Your task to perform on an android device: Add logitech g903 to the cart on costco Image 0: 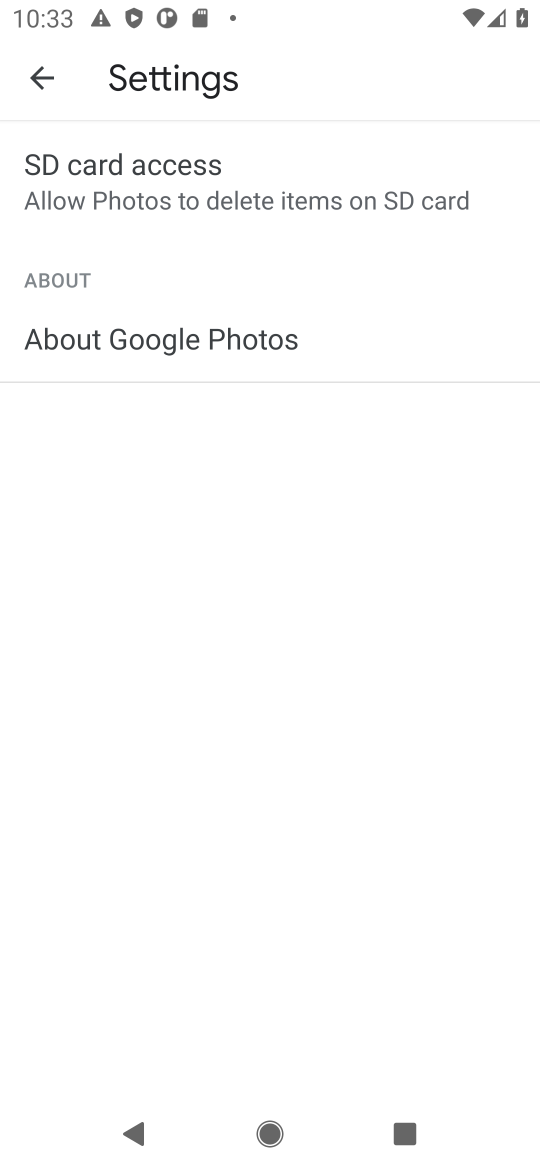
Step 0: press home button
Your task to perform on an android device: Add logitech g903 to the cart on costco Image 1: 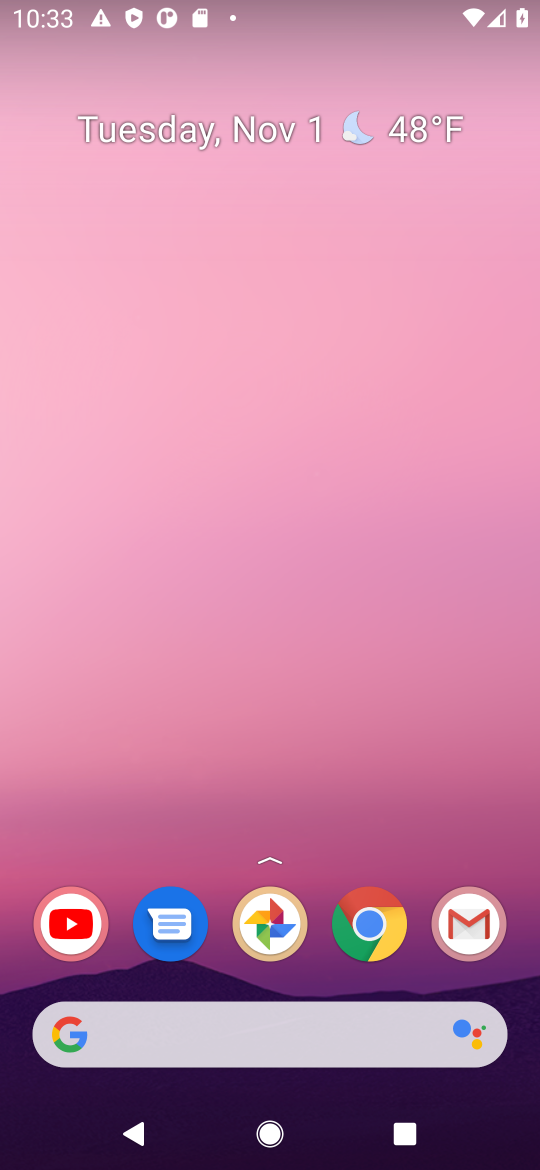
Step 1: click (390, 940)
Your task to perform on an android device: Add logitech g903 to the cart on costco Image 2: 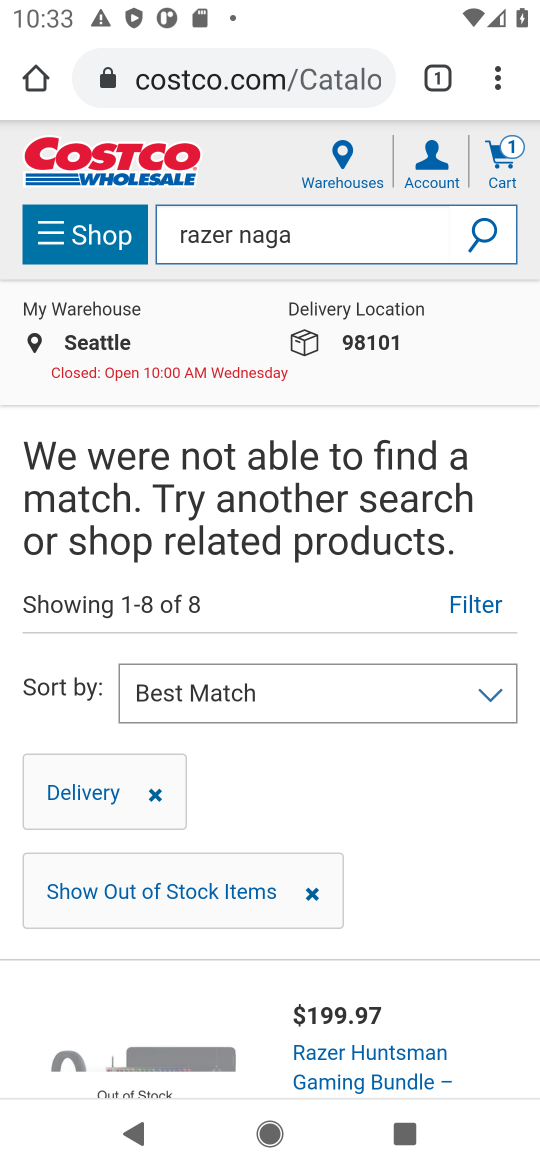
Step 2: click (487, 234)
Your task to perform on an android device: Add logitech g903 to the cart on costco Image 3: 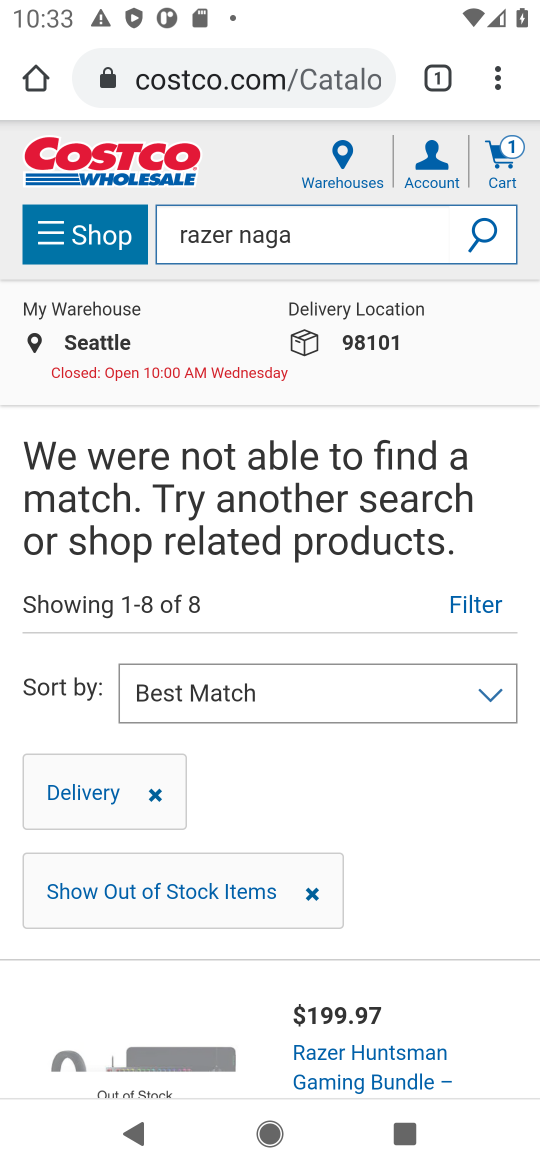
Step 3: click (394, 229)
Your task to perform on an android device: Add logitech g903 to the cart on costco Image 4: 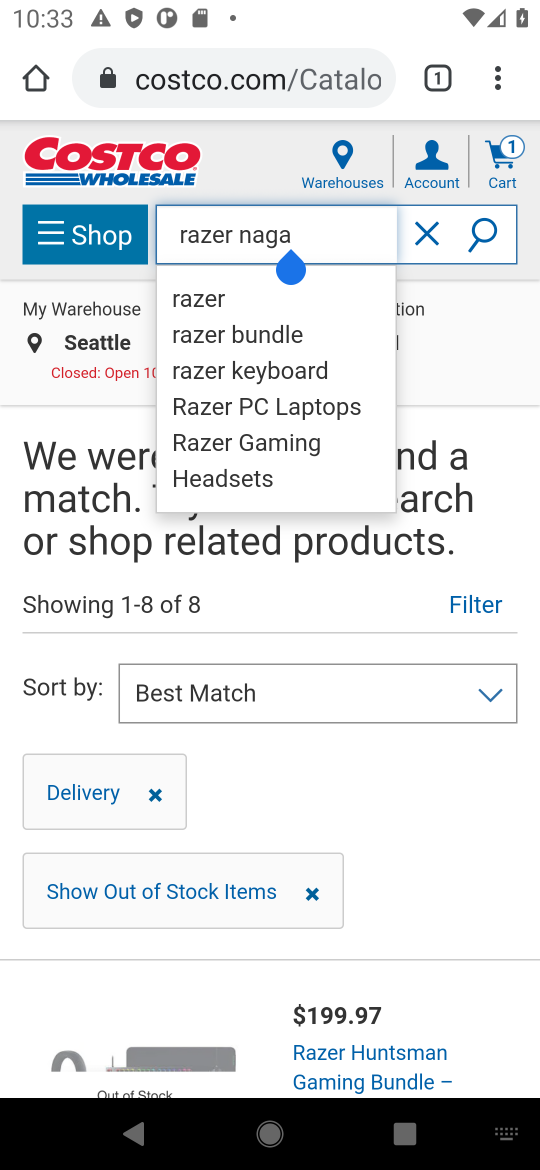
Step 4: click (430, 236)
Your task to perform on an android device: Add logitech g903 to the cart on costco Image 5: 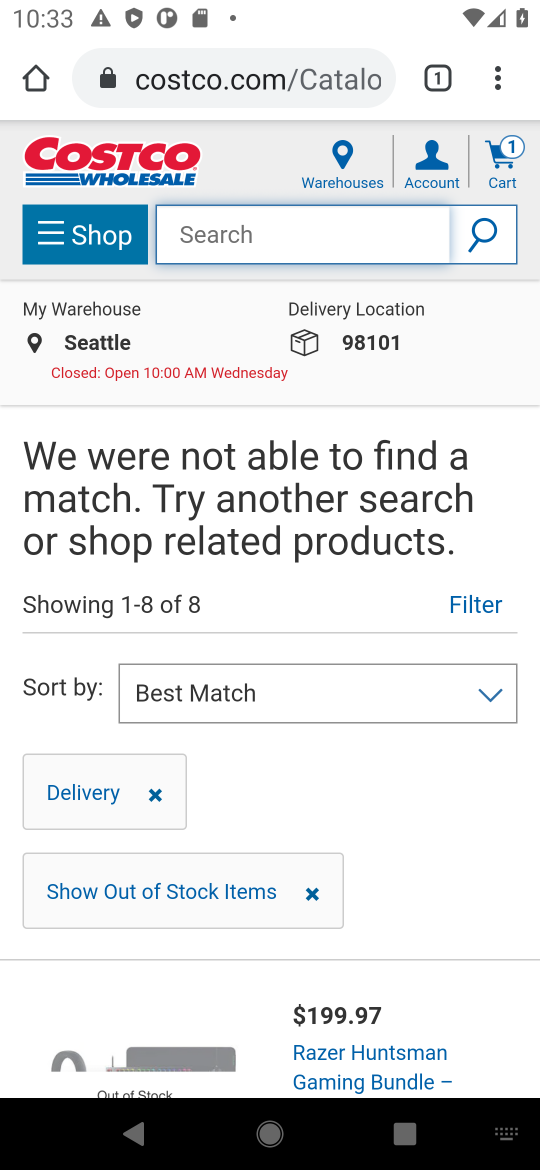
Step 5: type "logitech g903"
Your task to perform on an android device: Add logitech g903 to the cart on costco Image 6: 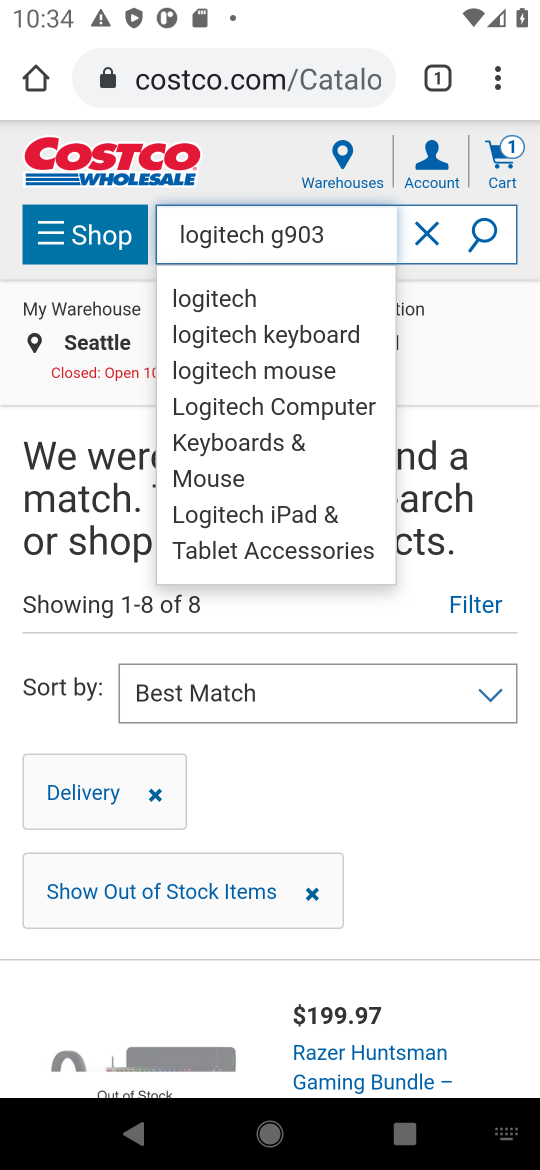
Step 6: click (489, 231)
Your task to perform on an android device: Add logitech g903 to the cart on costco Image 7: 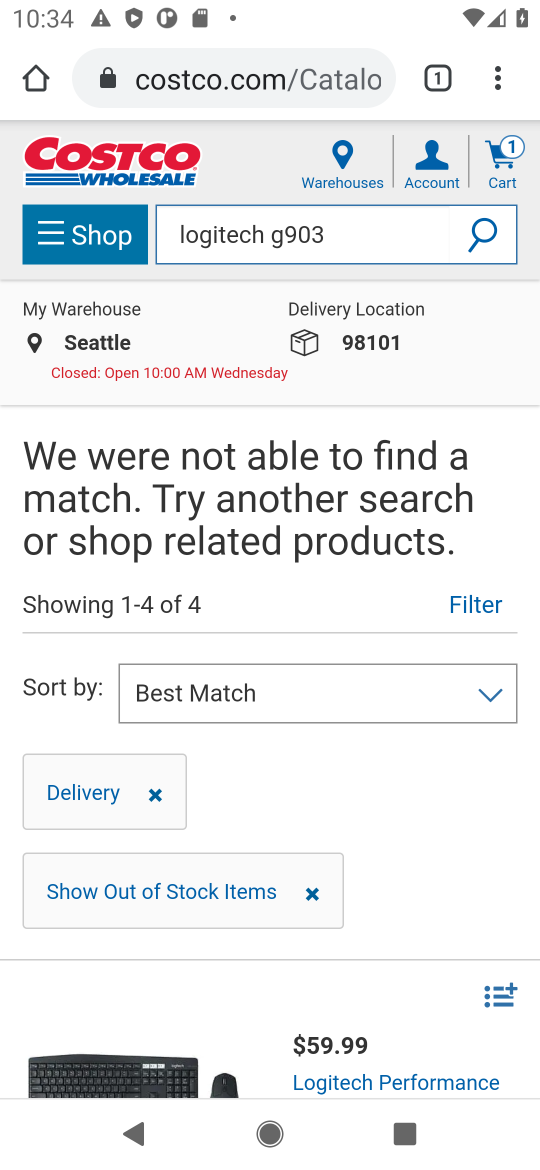
Step 7: task complete